Your task to perform on an android device: What is the news today? Image 0: 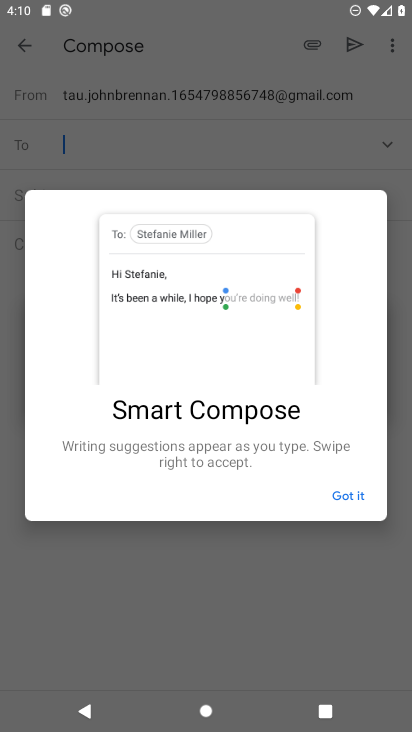
Step 0: press home button
Your task to perform on an android device: What is the news today? Image 1: 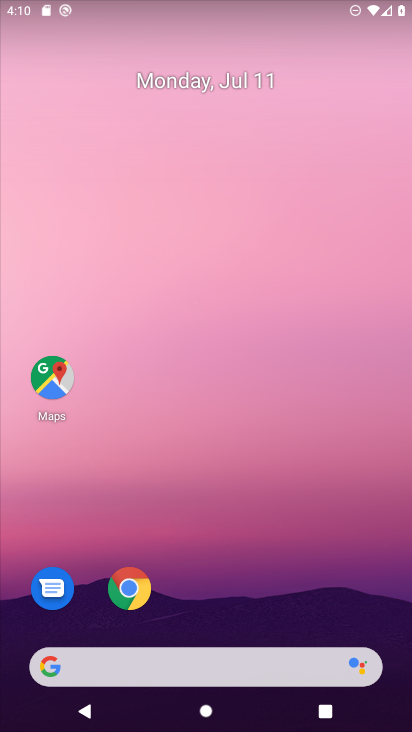
Step 1: click (151, 669)
Your task to perform on an android device: What is the news today? Image 2: 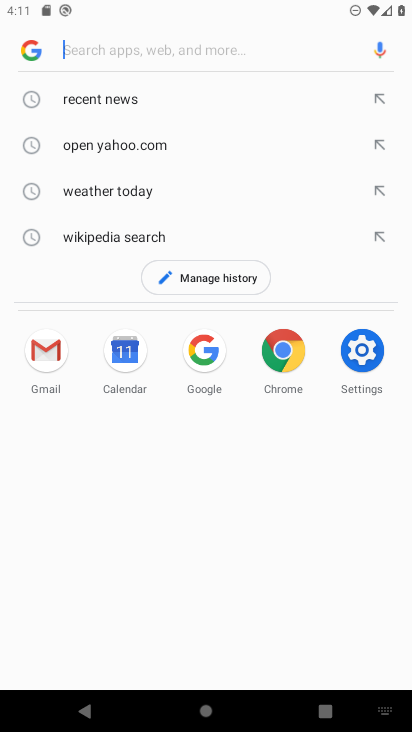
Step 2: type "news today"
Your task to perform on an android device: What is the news today? Image 3: 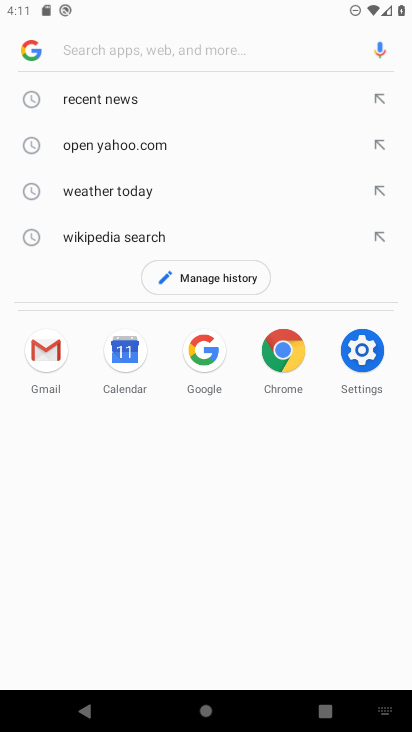
Step 3: click (100, 53)
Your task to perform on an android device: What is the news today? Image 4: 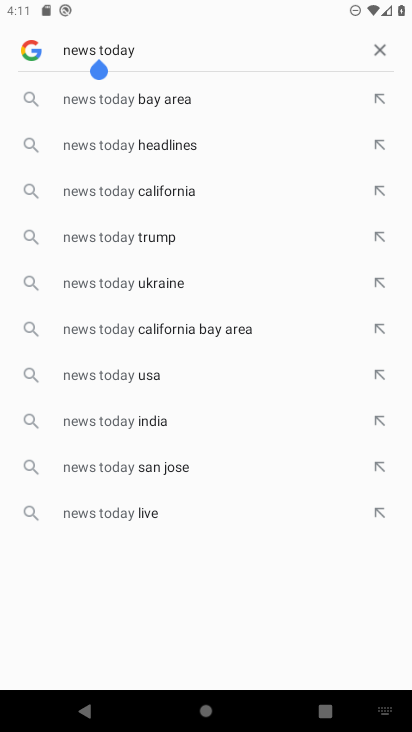
Step 4: press enter
Your task to perform on an android device: What is the news today? Image 5: 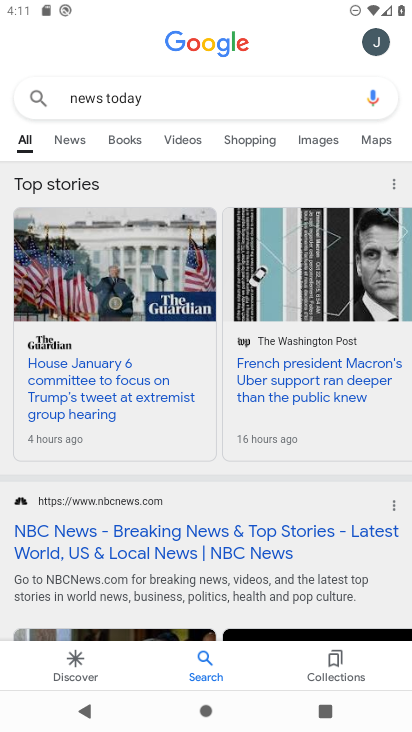
Step 5: task complete